Your task to perform on an android device: Go to location settings Image 0: 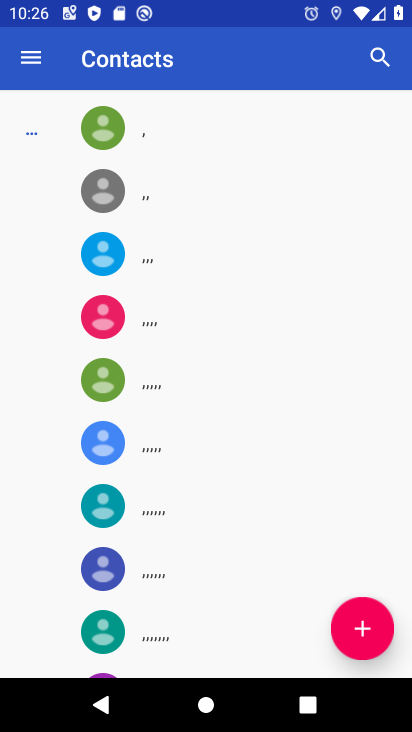
Step 0: press home button
Your task to perform on an android device: Go to location settings Image 1: 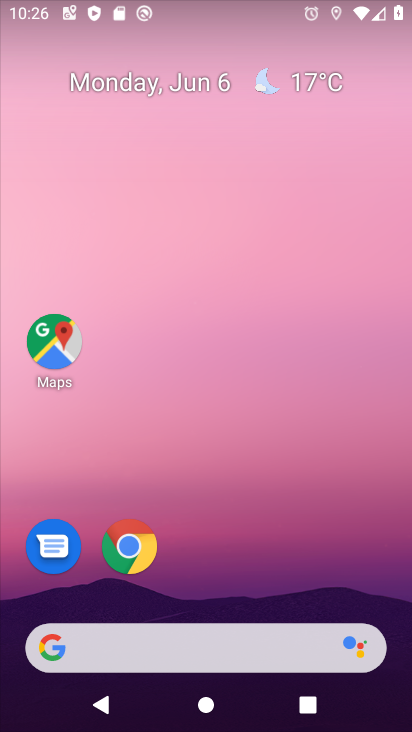
Step 1: drag from (195, 580) to (348, 9)
Your task to perform on an android device: Go to location settings Image 2: 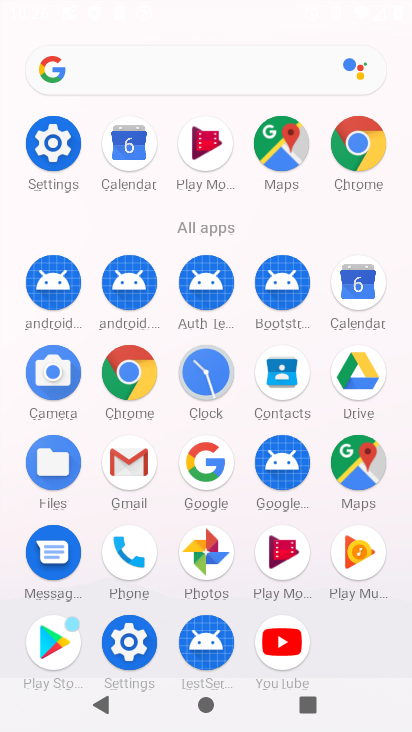
Step 2: click (48, 150)
Your task to perform on an android device: Go to location settings Image 3: 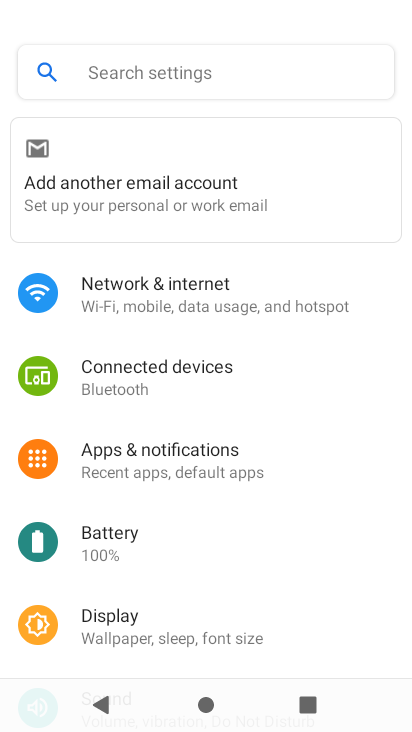
Step 3: drag from (193, 541) to (267, 233)
Your task to perform on an android device: Go to location settings Image 4: 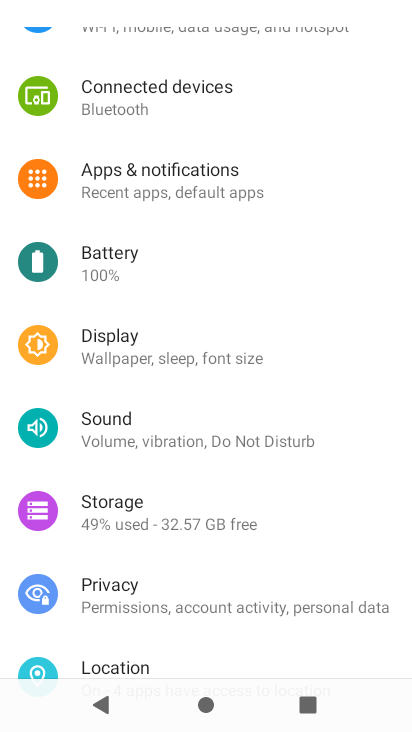
Step 4: drag from (207, 548) to (252, 341)
Your task to perform on an android device: Go to location settings Image 5: 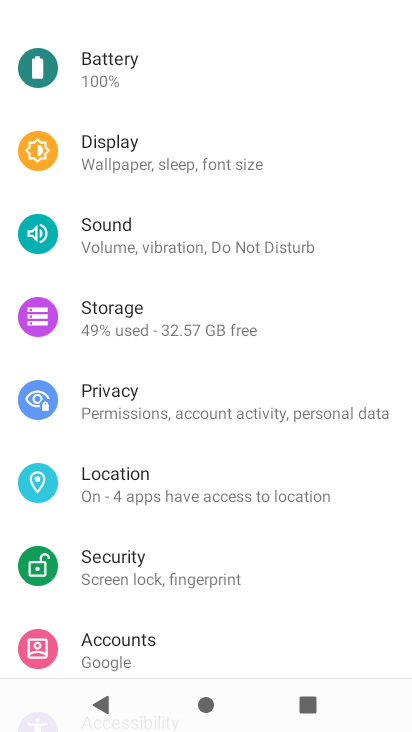
Step 5: click (151, 579)
Your task to perform on an android device: Go to location settings Image 6: 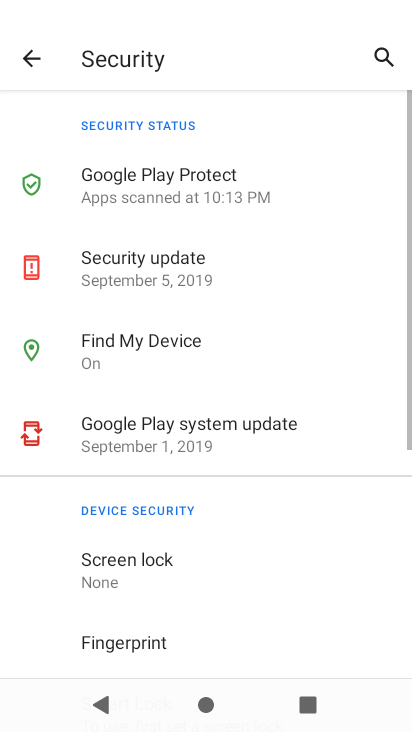
Step 6: click (32, 50)
Your task to perform on an android device: Go to location settings Image 7: 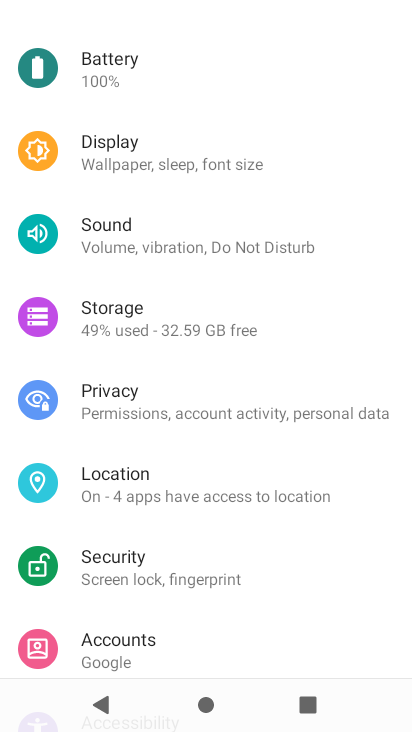
Step 7: click (146, 477)
Your task to perform on an android device: Go to location settings Image 8: 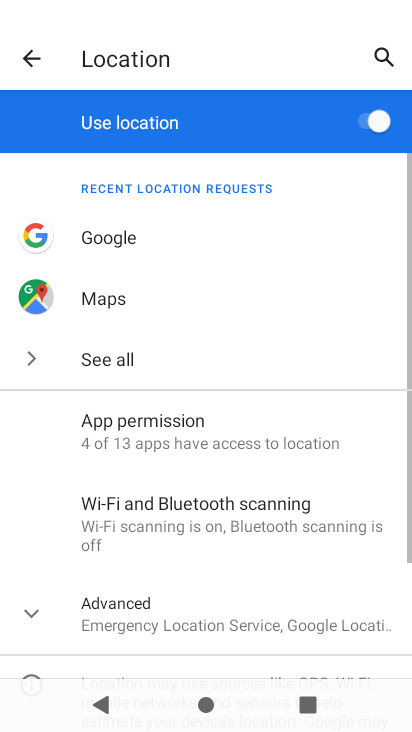
Step 8: task complete